Your task to perform on an android device: See recent photos Image 0: 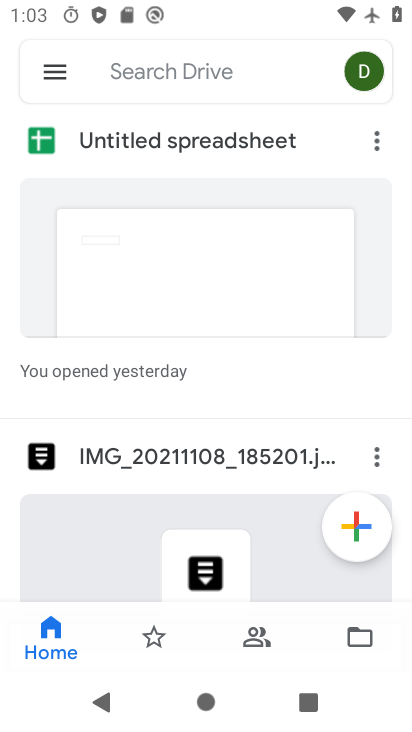
Step 0: press home button
Your task to perform on an android device: See recent photos Image 1: 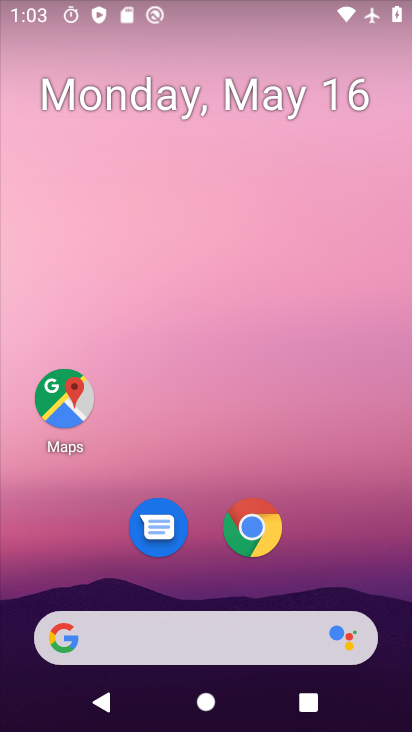
Step 1: drag from (140, 631) to (281, 157)
Your task to perform on an android device: See recent photos Image 2: 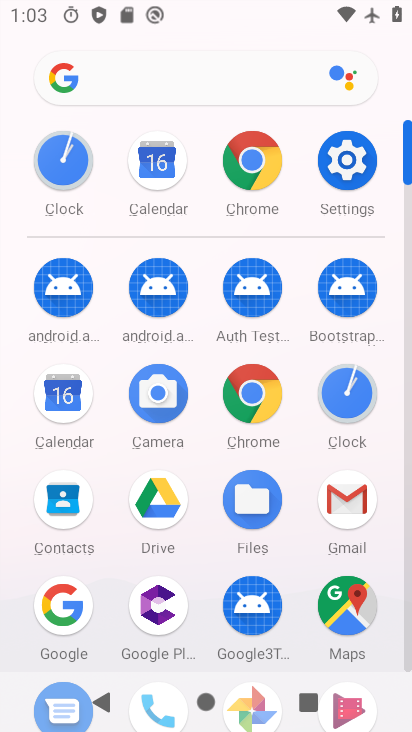
Step 2: drag from (226, 435) to (324, 159)
Your task to perform on an android device: See recent photos Image 3: 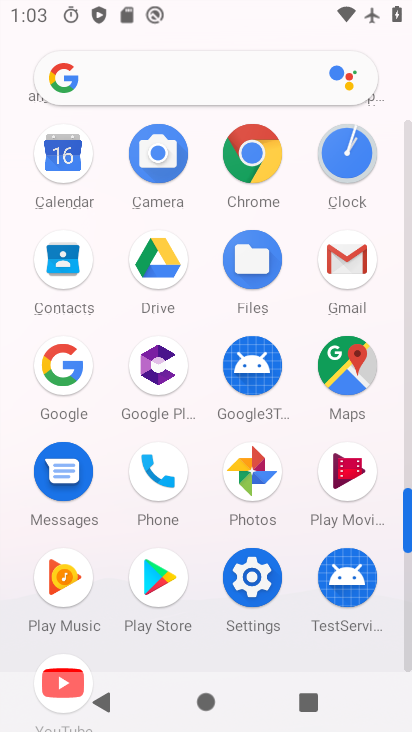
Step 3: click (247, 479)
Your task to perform on an android device: See recent photos Image 4: 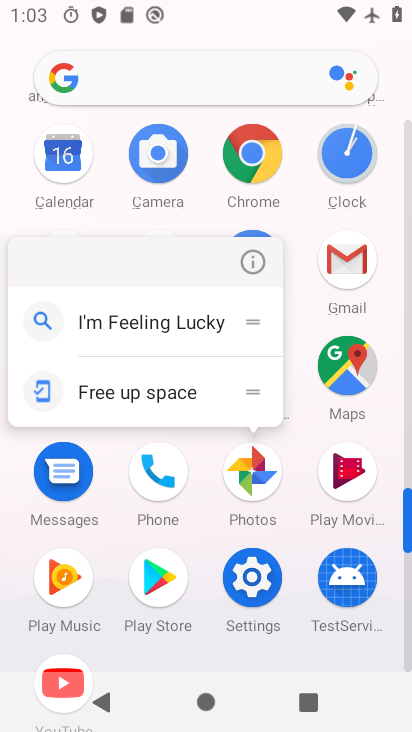
Step 4: click (258, 485)
Your task to perform on an android device: See recent photos Image 5: 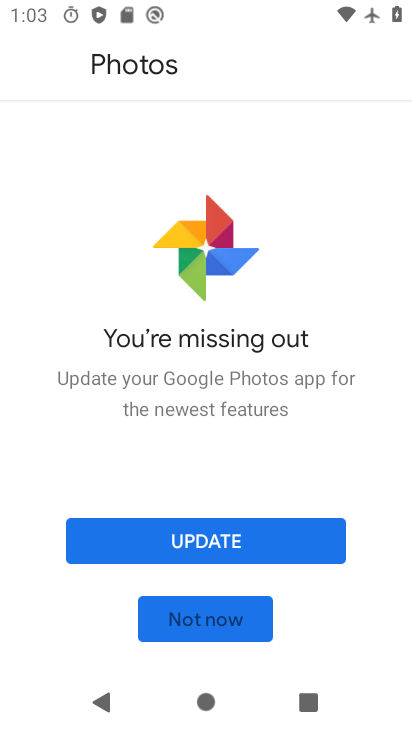
Step 5: click (215, 532)
Your task to perform on an android device: See recent photos Image 6: 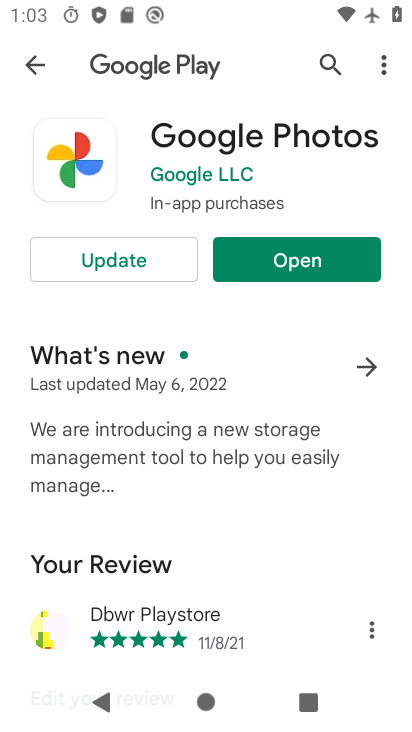
Step 6: click (155, 272)
Your task to perform on an android device: See recent photos Image 7: 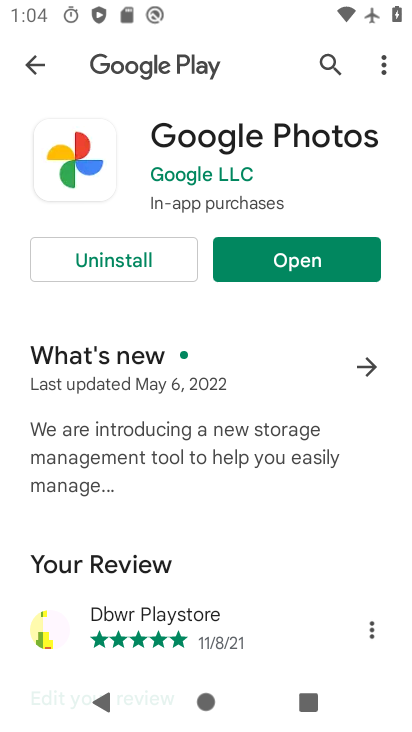
Step 7: click (290, 260)
Your task to perform on an android device: See recent photos Image 8: 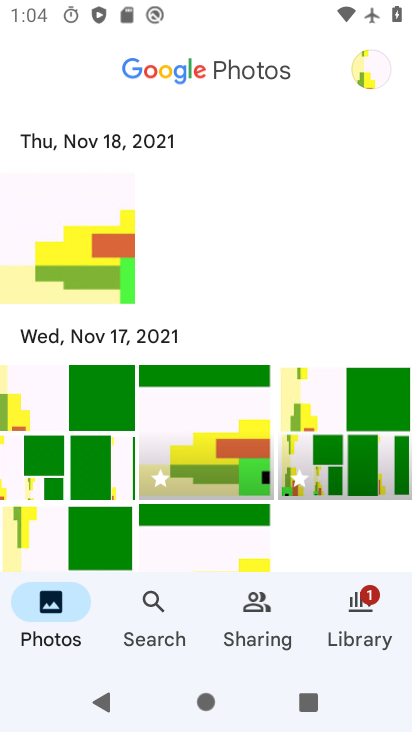
Step 8: click (143, 622)
Your task to perform on an android device: See recent photos Image 9: 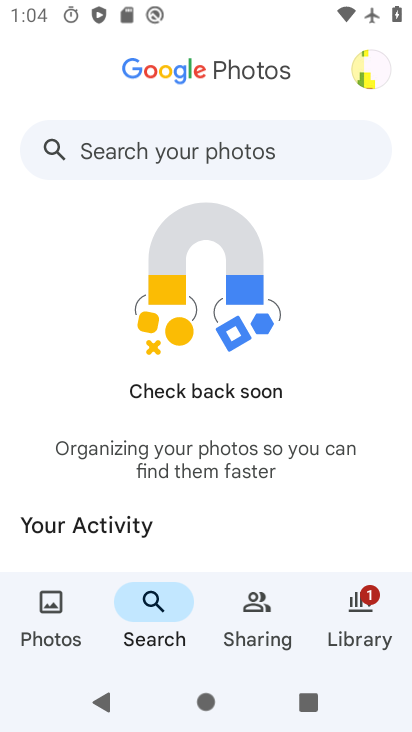
Step 9: drag from (230, 524) to (348, 80)
Your task to perform on an android device: See recent photos Image 10: 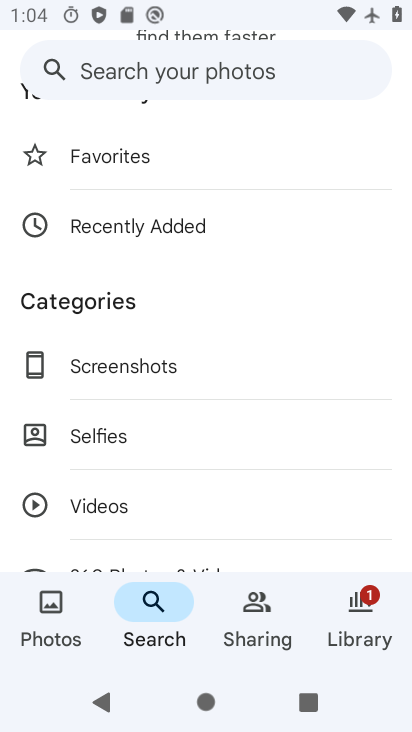
Step 10: click (128, 228)
Your task to perform on an android device: See recent photos Image 11: 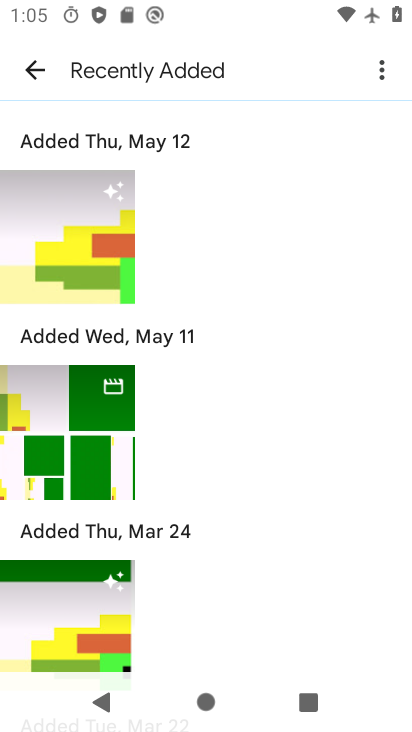
Step 11: task complete